Your task to perform on an android device: Do I have any events tomorrow? Image 0: 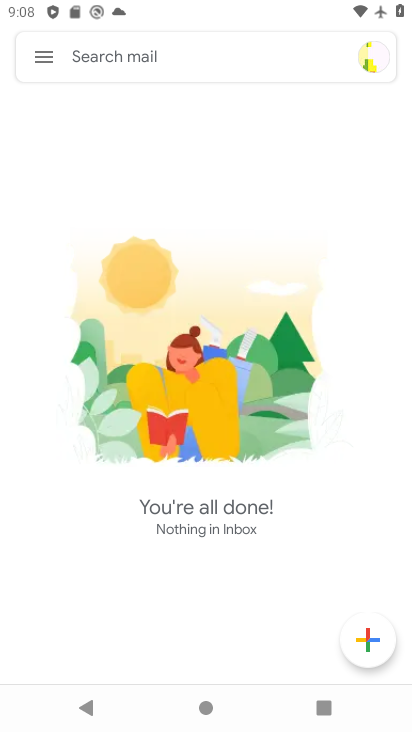
Step 0: press home button
Your task to perform on an android device: Do I have any events tomorrow? Image 1: 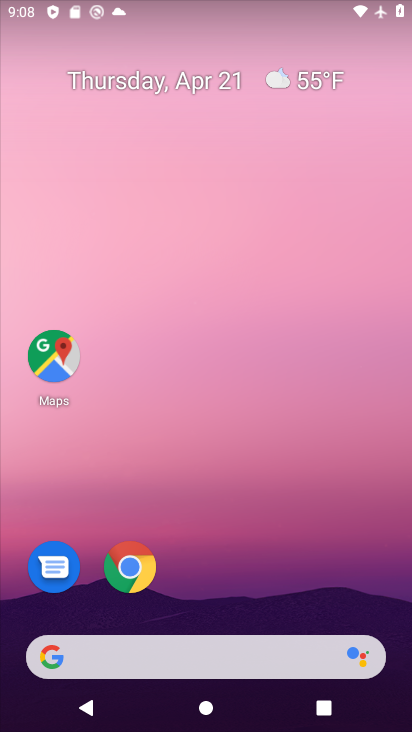
Step 1: drag from (341, 606) to (266, 79)
Your task to perform on an android device: Do I have any events tomorrow? Image 2: 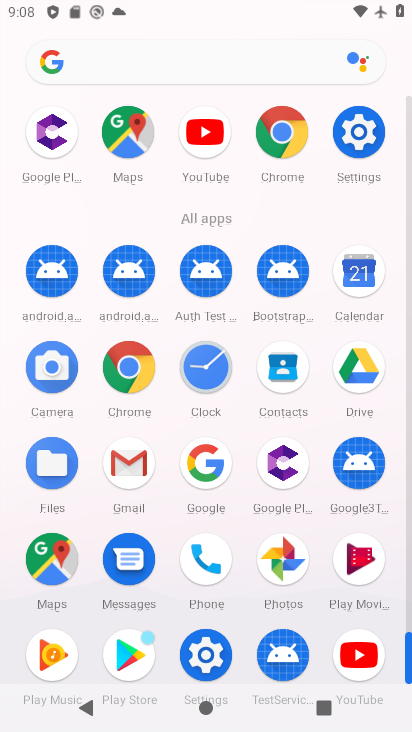
Step 2: click (355, 268)
Your task to perform on an android device: Do I have any events tomorrow? Image 3: 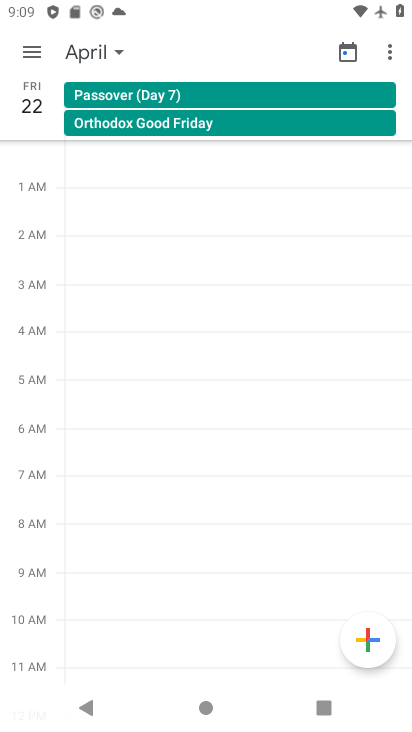
Step 3: click (31, 47)
Your task to perform on an android device: Do I have any events tomorrow? Image 4: 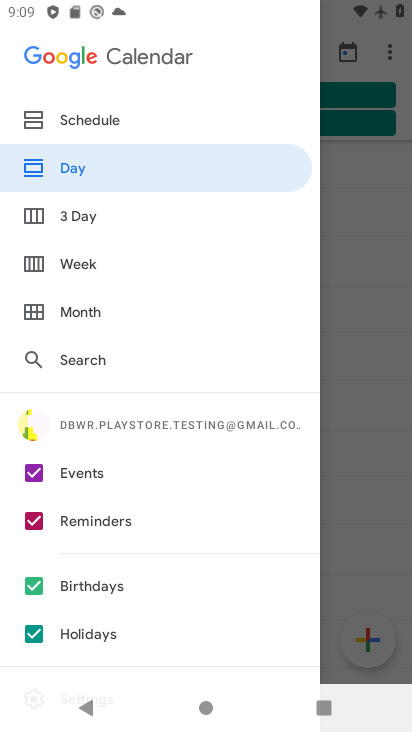
Step 4: click (133, 160)
Your task to perform on an android device: Do I have any events tomorrow? Image 5: 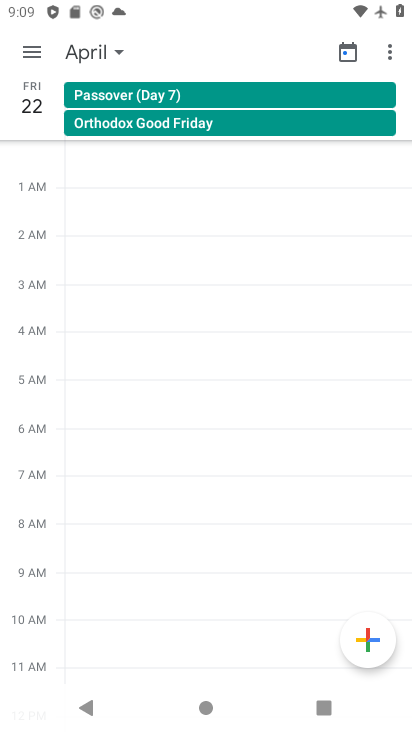
Step 5: task complete